Your task to perform on an android device: Open notification settings Image 0: 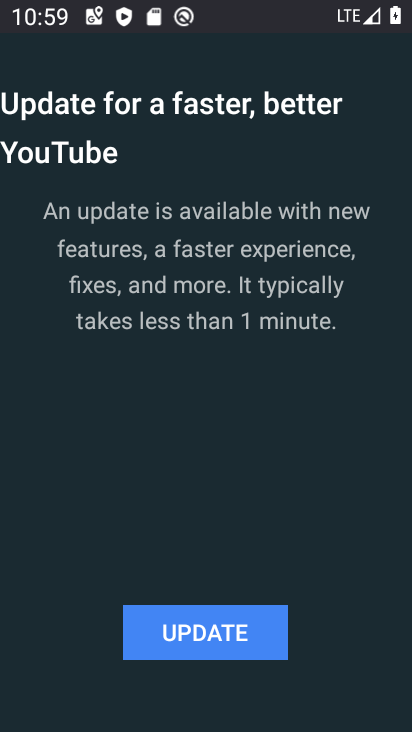
Step 0: press home button
Your task to perform on an android device: Open notification settings Image 1: 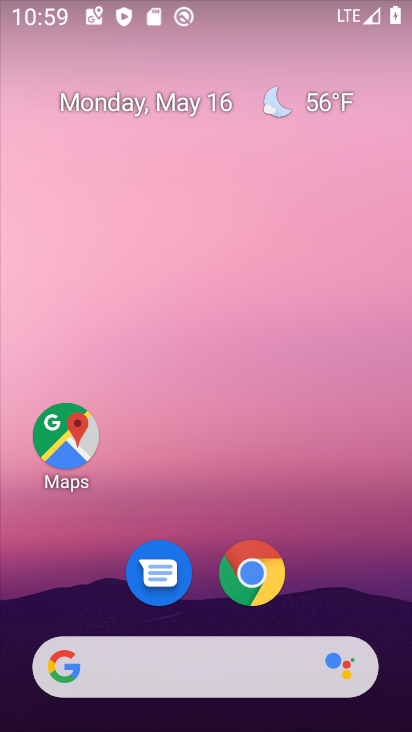
Step 1: drag from (193, 712) to (161, 44)
Your task to perform on an android device: Open notification settings Image 2: 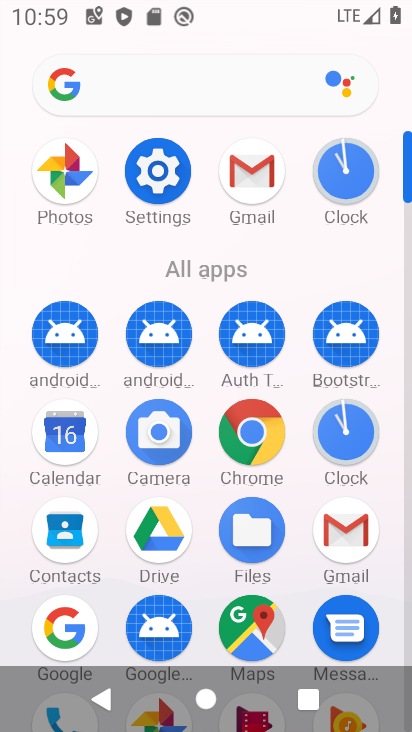
Step 2: click (159, 192)
Your task to perform on an android device: Open notification settings Image 3: 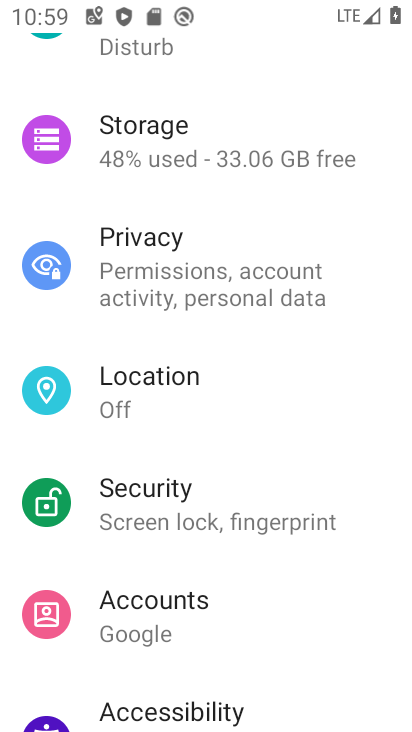
Step 3: drag from (308, 165) to (360, 724)
Your task to perform on an android device: Open notification settings Image 4: 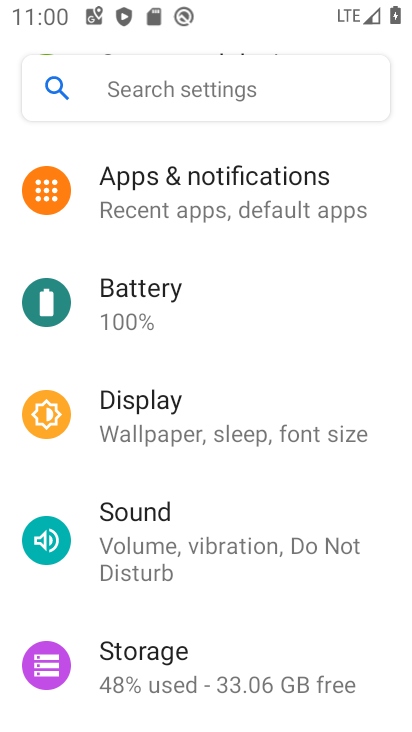
Step 4: click (262, 205)
Your task to perform on an android device: Open notification settings Image 5: 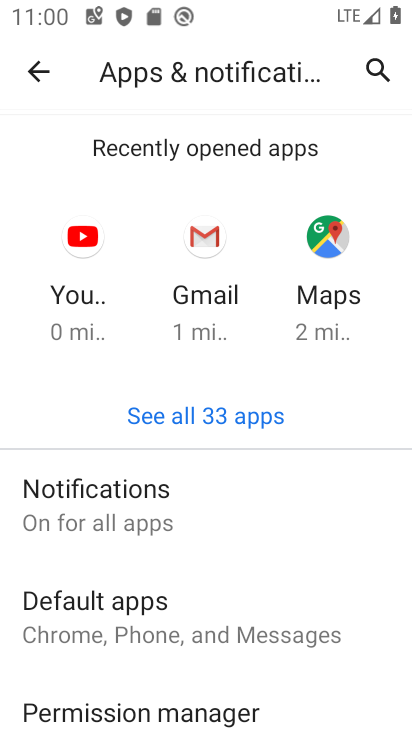
Step 5: task complete